Your task to perform on an android device: Open ESPN.com Image 0: 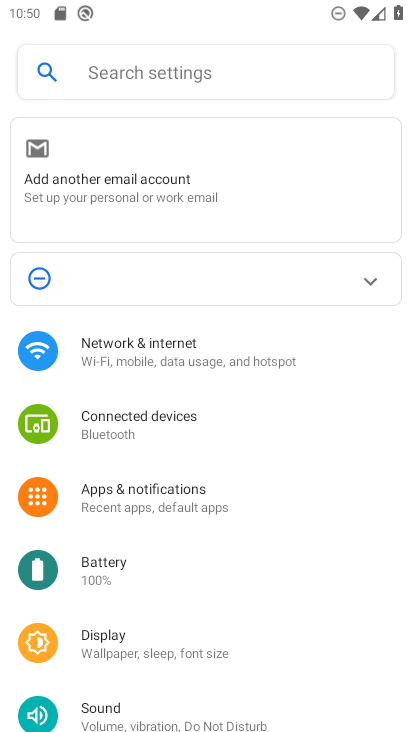
Step 0: press home button
Your task to perform on an android device: Open ESPN.com Image 1: 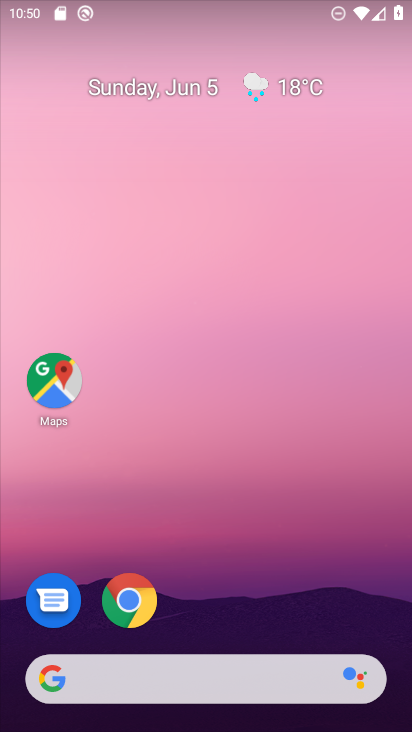
Step 1: click (122, 605)
Your task to perform on an android device: Open ESPN.com Image 2: 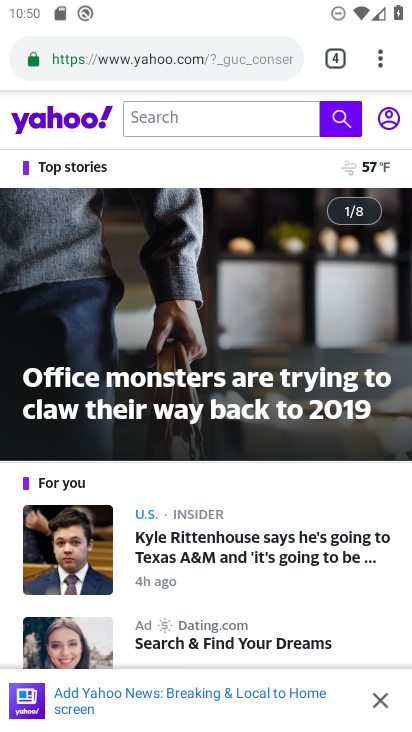
Step 2: click (338, 56)
Your task to perform on an android device: Open ESPN.com Image 3: 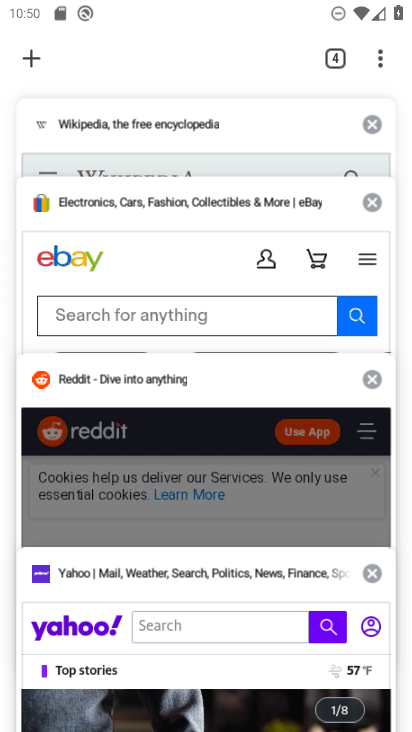
Step 3: click (22, 56)
Your task to perform on an android device: Open ESPN.com Image 4: 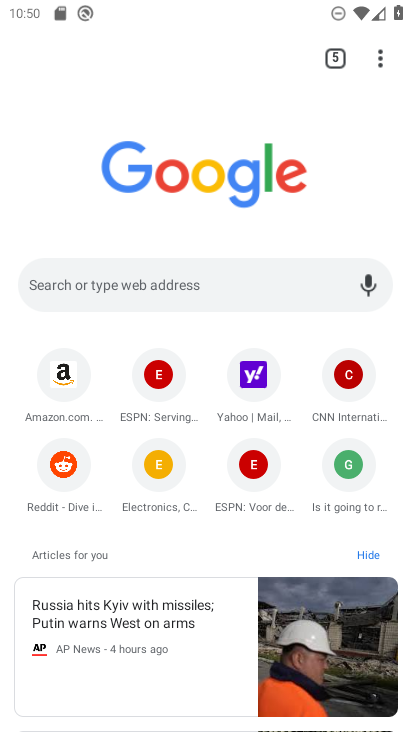
Step 4: click (256, 476)
Your task to perform on an android device: Open ESPN.com Image 5: 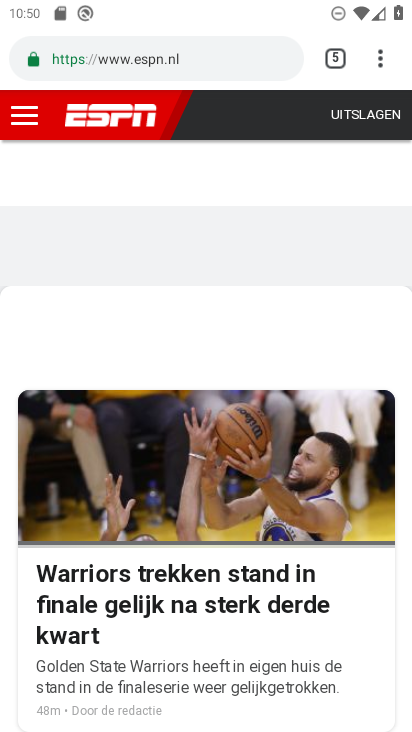
Step 5: task complete